Your task to perform on an android device: Set the phone to "Do not disturb". Image 0: 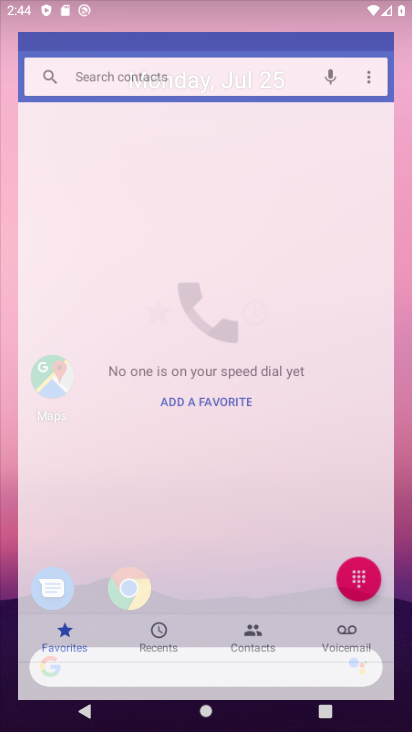
Step 0: drag from (284, 646) to (297, 269)
Your task to perform on an android device: Set the phone to "Do not disturb". Image 1: 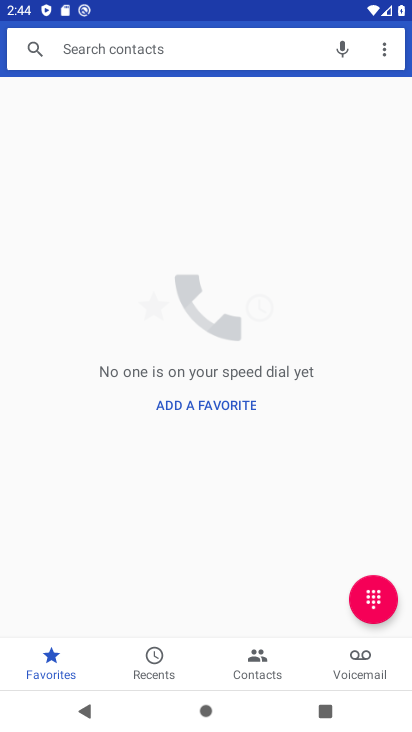
Step 1: drag from (139, 0) to (130, 377)
Your task to perform on an android device: Set the phone to "Do not disturb". Image 2: 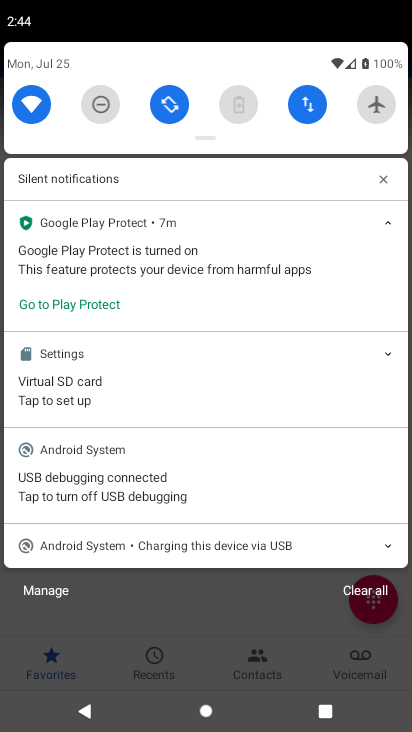
Step 2: click (107, 97)
Your task to perform on an android device: Set the phone to "Do not disturb". Image 3: 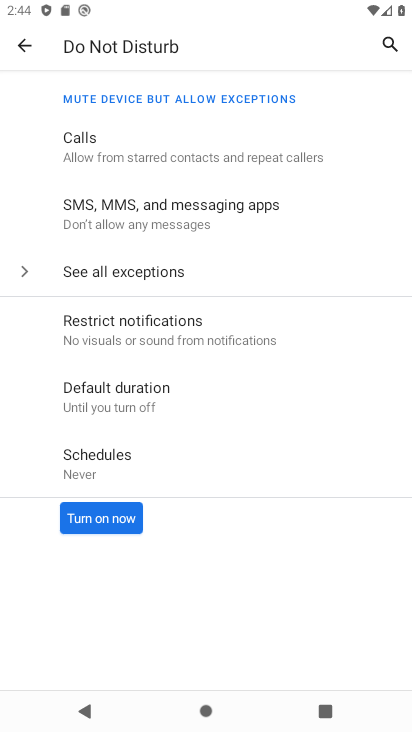
Step 3: click (105, 524)
Your task to perform on an android device: Set the phone to "Do not disturb". Image 4: 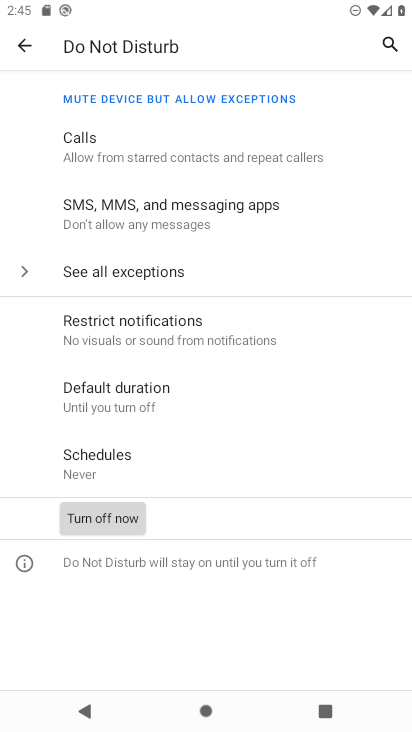
Step 4: task complete